Your task to perform on an android device: Go to Reddit.com Image 0: 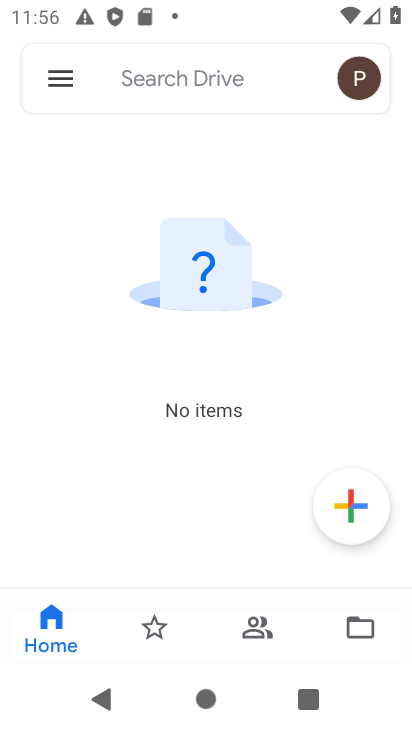
Step 0: press home button
Your task to perform on an android device: Go to Reddit.com Image 1: 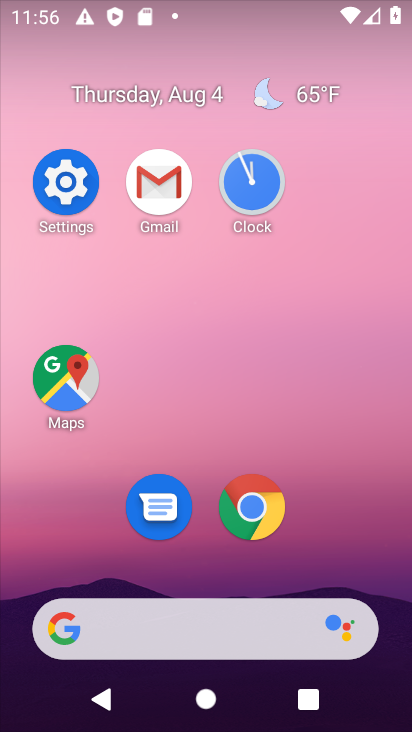
Step 1: click (248, 515)
Your task to perform on an android device: Go to Reddit.com Image 2: 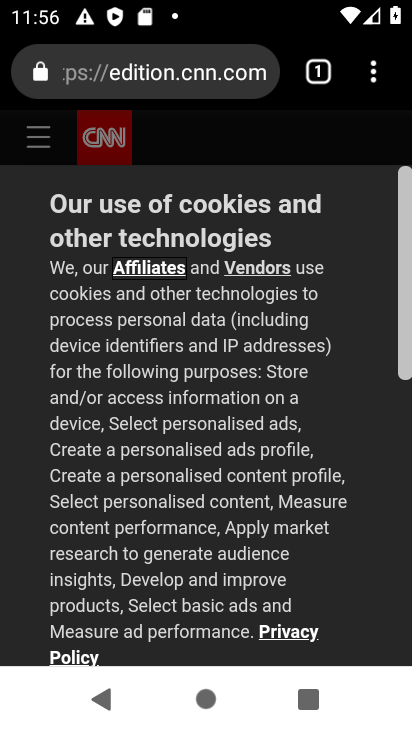
Step 2: click (318, 62)
Your task to perform on an android device: Go to Reddit.com Image 3: 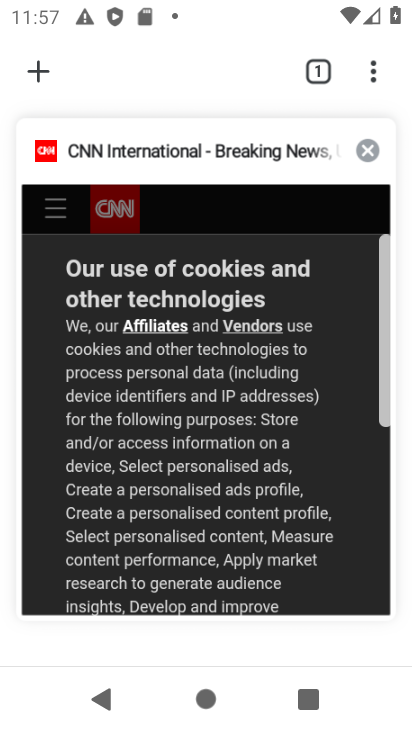
Step 3: click (69, 68)
Your task to perform on an android device: Go to Reddit.com Image 4: 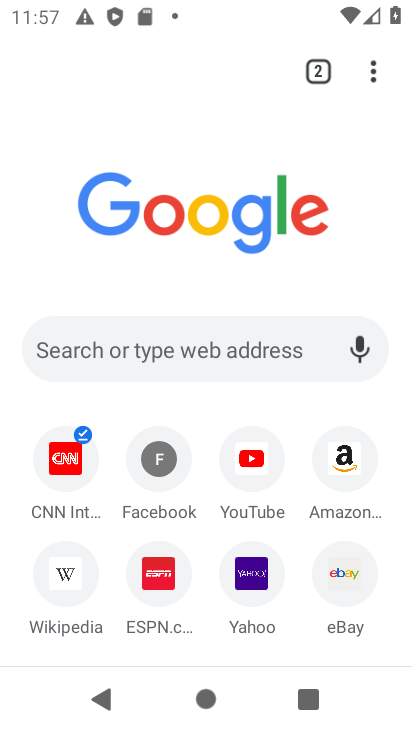
Step 4: click (176, 347)
Your task to perform on an android device: Go to Reddit.com Image 5: 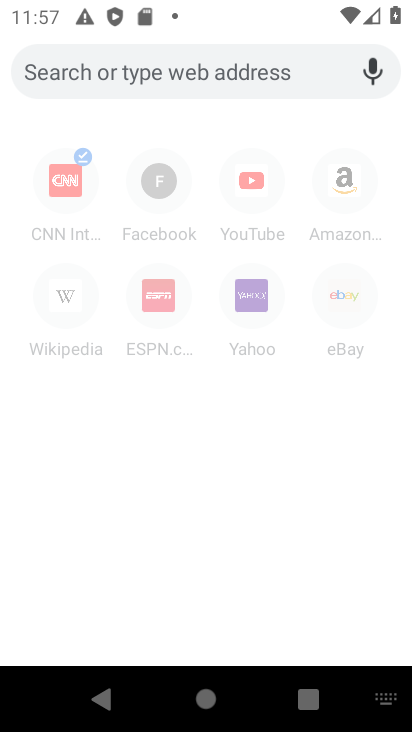
Step 5: type "reddit"
Your task to perform on an android device: Go to Reddit.com Image 6: 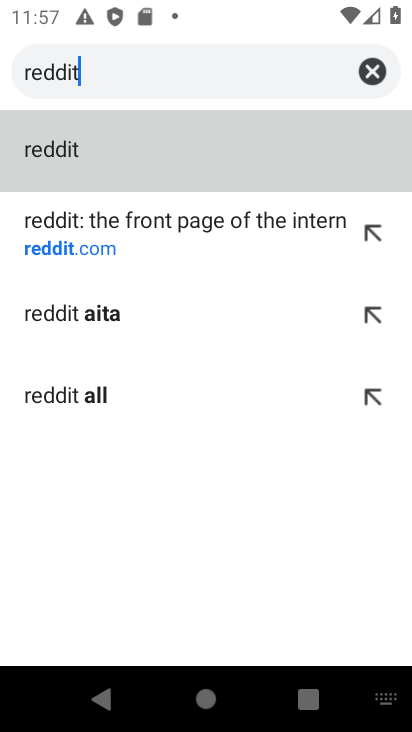
Step 6: click (78, 171)
Your task to perform on an android device: Go to Reddit.com Image 7: 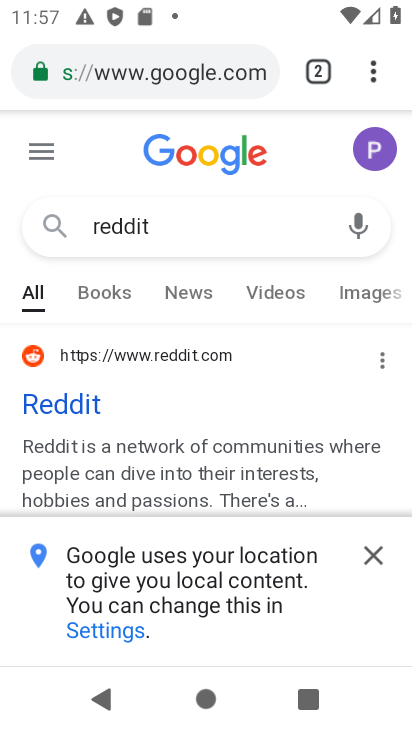
Step 7: task complete